Your task to perform on an android device: Turn off the flashlight Image 0: 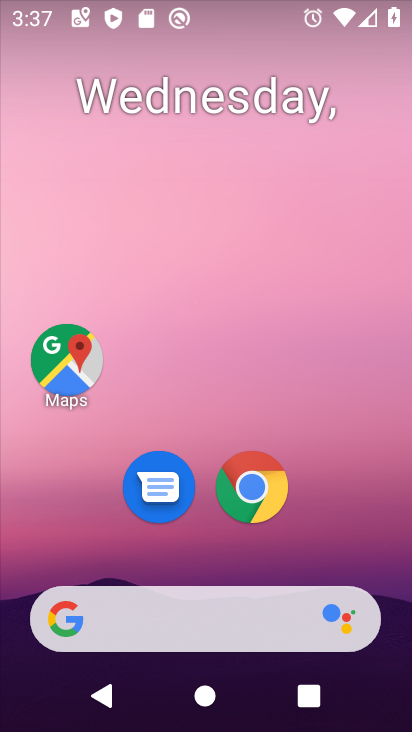
Step 0: drag from (223, 6) to (198, 347)
Your task to perform on an android device: Turn off the flashlight Image 1: 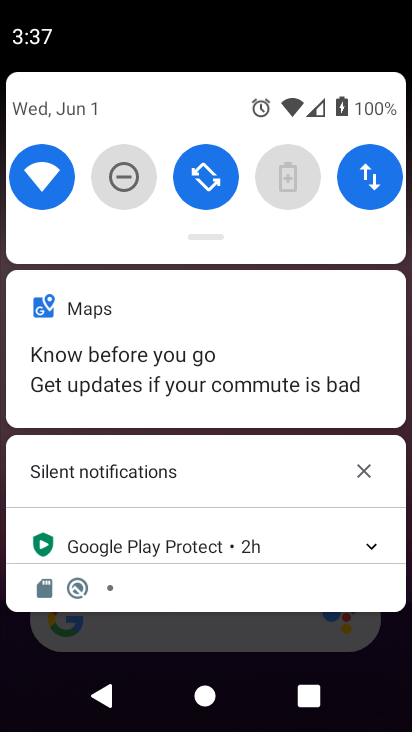
Step 1: drag from (237, 114) to (234, 369)
Your task to perform on an android device: Turn off the flashlight Image 2: 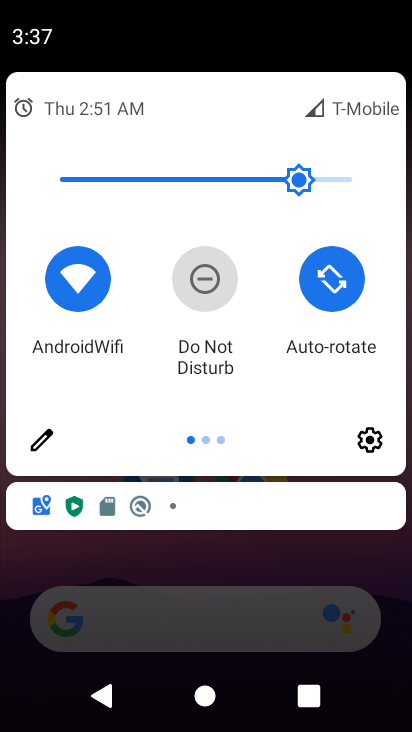
Step 2: click (47, 443)
Your task to perform on an android device: Turn off the flashlight Image 3: 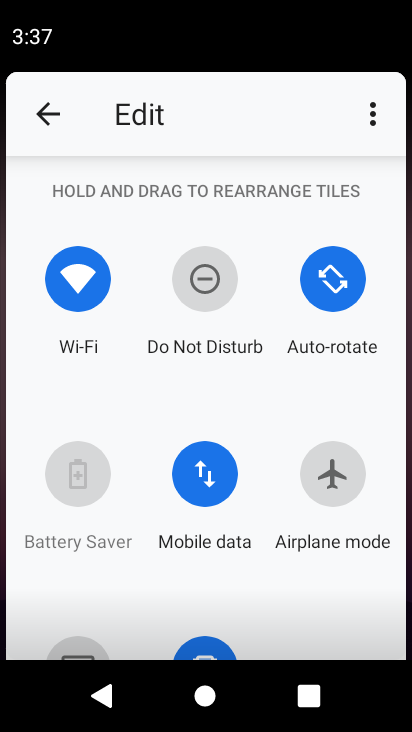
Step 3: task complete